Your task to perform on an android device: move a message to another label in the gmail app Image 0: 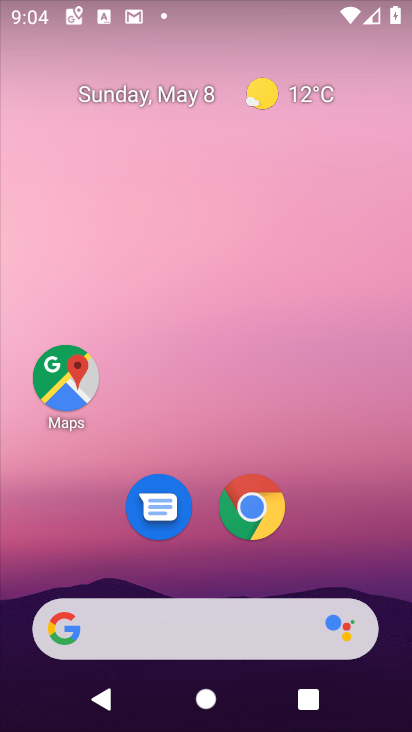
Step 0: click (271, 355)
Your task to perform on an android device: move a message to another label in the gmail app Image 1: 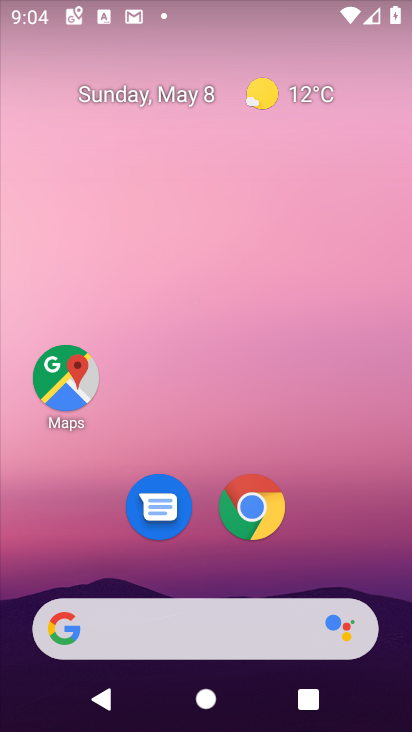
Step 1: drag from (253, 696) to (263, 117)
Your task to perform on an android device: move a message to another label in the gmail app Image 2: 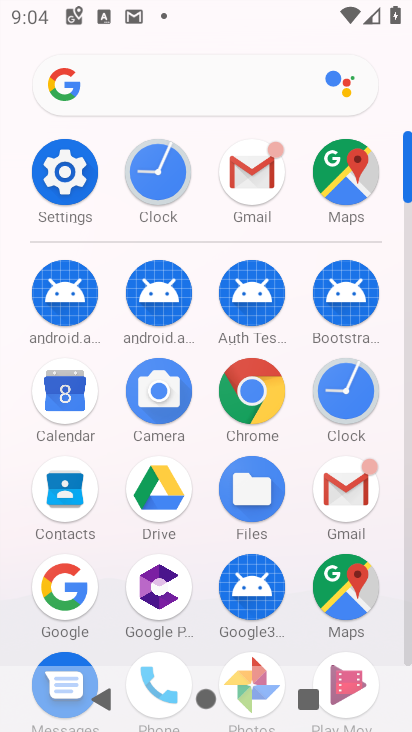
Step 2: click (366, 483)
Your task to perform on an android device: move a message to another label in the gmail app Image 3: 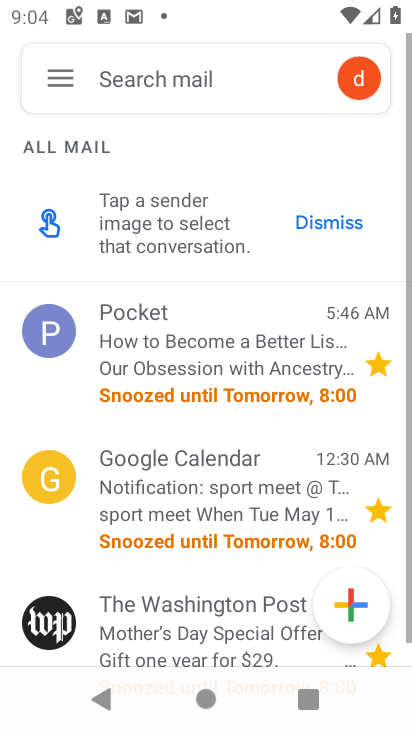
Step 3: click (286, 481)
Your task to perform on an android device: move a message to another label in the gmail app Image 4: 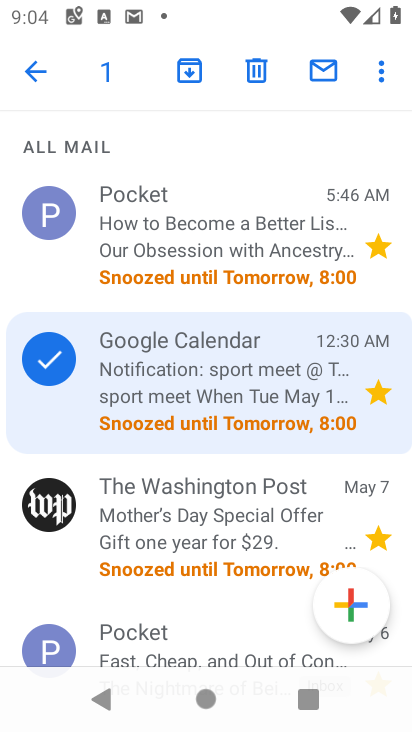
Step 4: click (387, 70)
Your task to perform on an android device: move a message to another label in the gmail app Image 5: 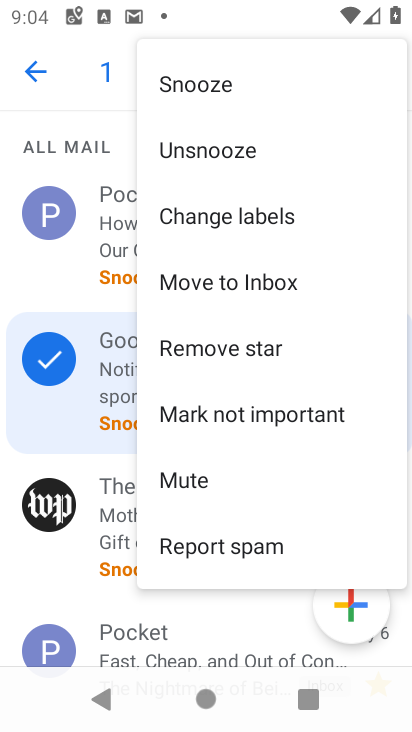
Step 5: click (242, 217)
Your task to perform on an android device: move a message to another label in the gmail app Image 6: 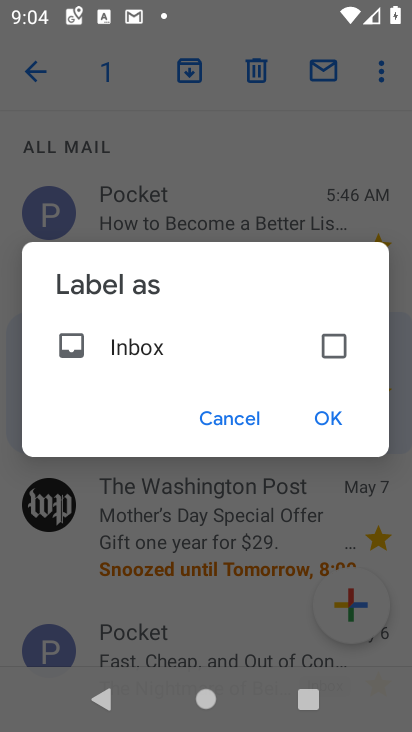
Step 6: click (332, 345)
Your task to perform on an android device: move a message to another label in the gmail app Image 7: 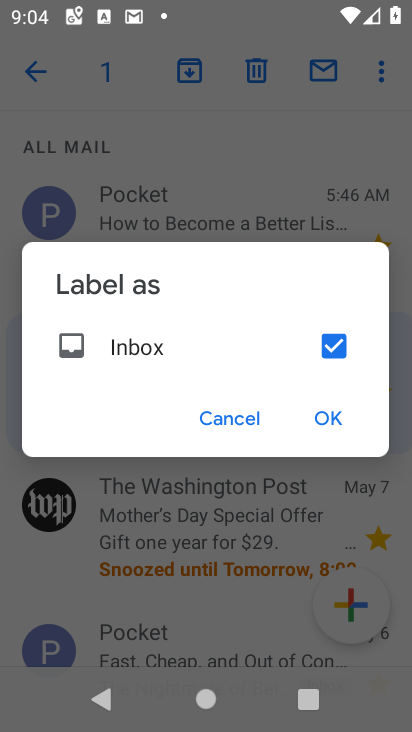
Step 7: click (328, 418)
Your task to perform on an android device: move a message to another label in the gmail app Image 8: 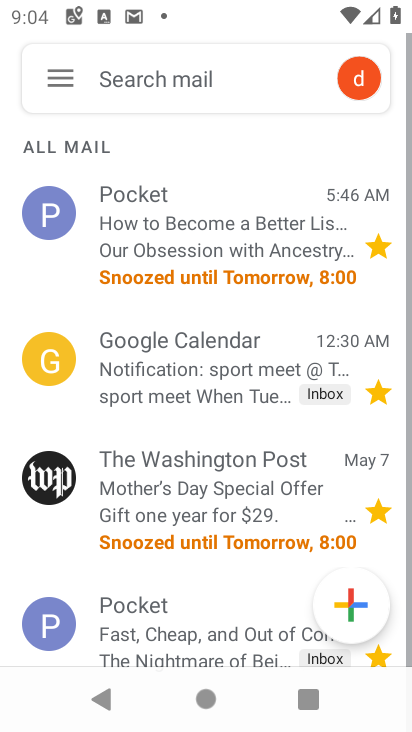
Step 8: task complete